Your task to perform on an android device: open chrome privacy settings Image 0: 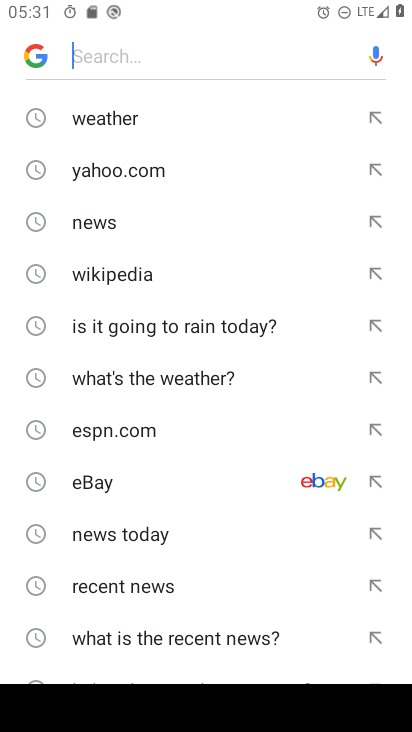
Step 0: press home button
Your task to perform on an android device: open chrome privacy settings Image 1: 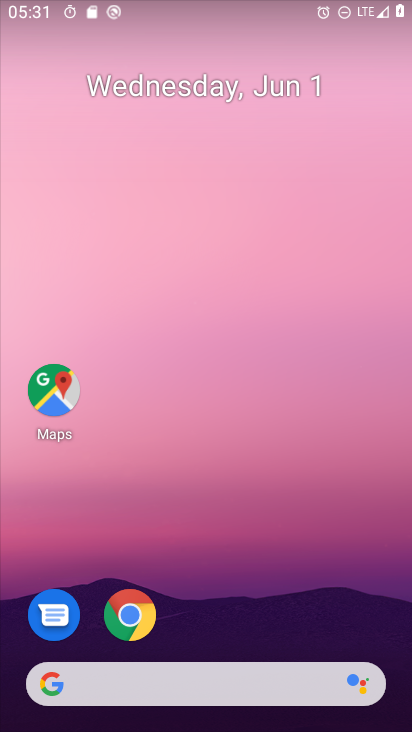
Step 1: drag from (192, 679) to (306, 26)
Your task to perform on an android device: open chrome privacy settings Image 2: 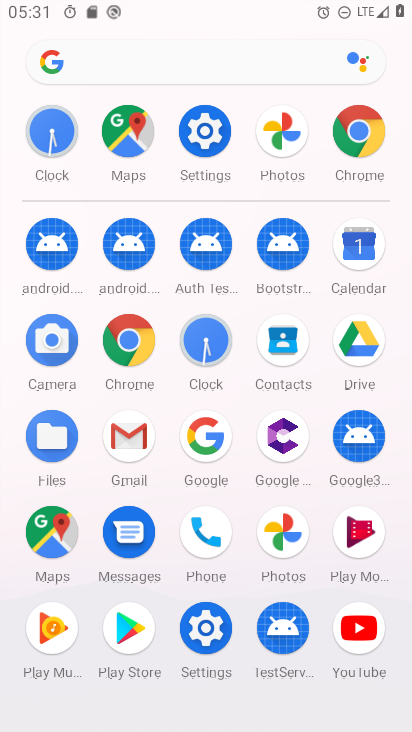
Step 2: click (218, 134)
Your task to perform on an android device: open chrome privacy settings Image 3: 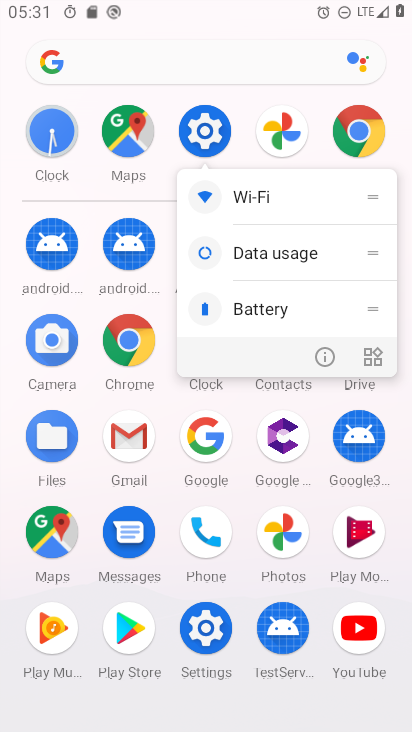
Step 3: click (218, 133)
Your task to perform on an android device: open chrome privacy settings Image 4: 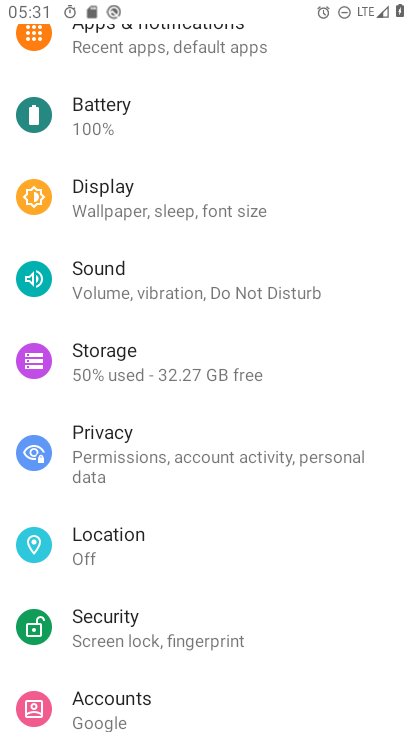
Step 4: drag from (192, 189) to (170, 465)
Your task to perform on an android device: open chrome privacy settings Image 5: 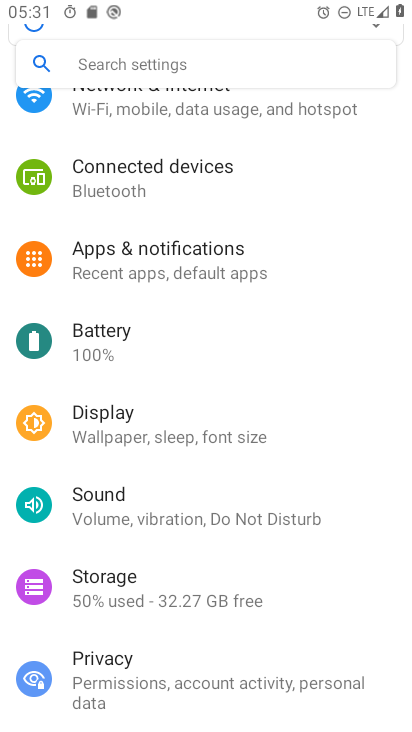
Step 5: click (121, 669)
Your task to perform on an android device: open chrome privacy settings Image 6: 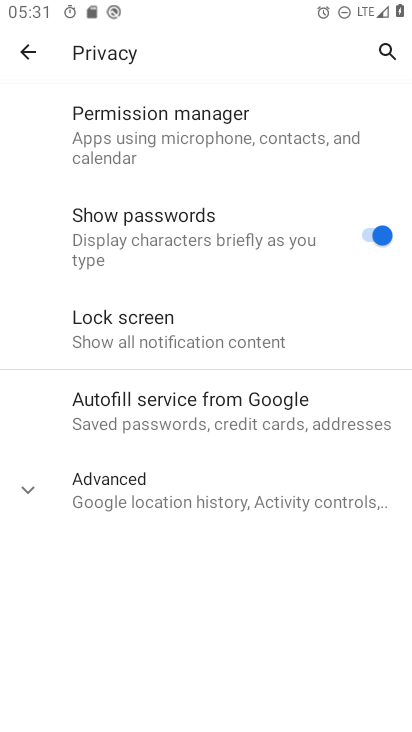
Step 6: press home button
Your task to perform on an android device: open chrome privacy settings Image 7: 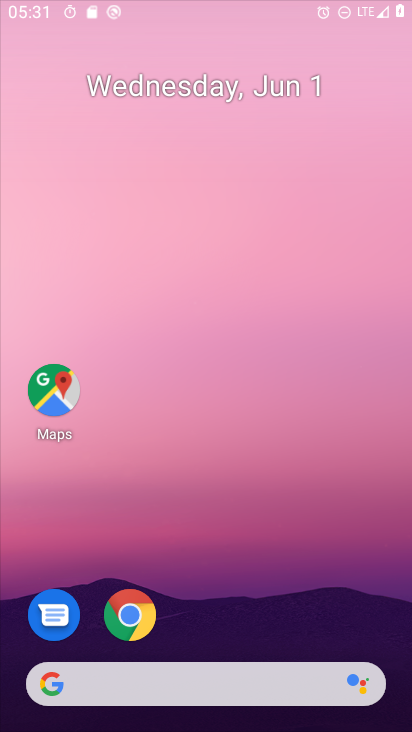
Step 7: drag from (165, 678) to (194, 43)
Your task to perform on an android device: open chrome privacy settings Image 8: 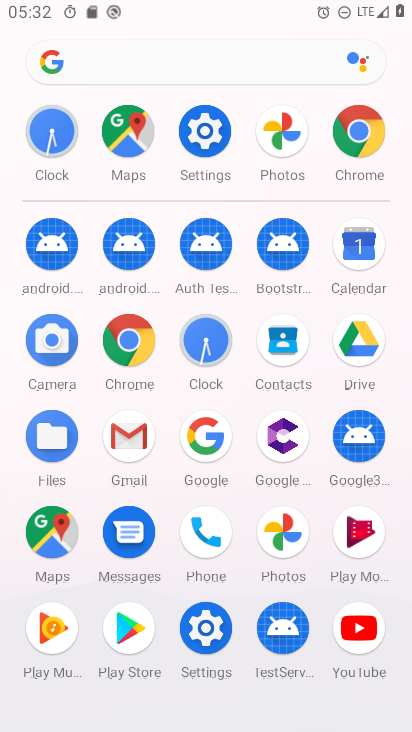
Step 8: click (146, 346)
Your task to perform on an android device: open chrome privacy settings Image 9: 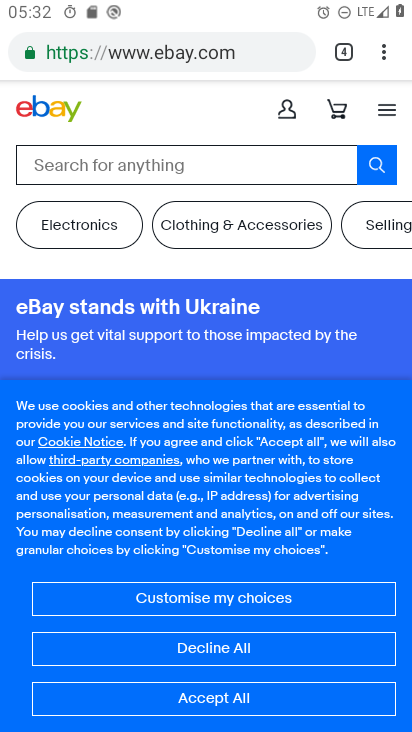
Step 9: drag from (375, 38) to (225, 628)
Your task to perform on an android device: open chrome privacy settings Image 10: 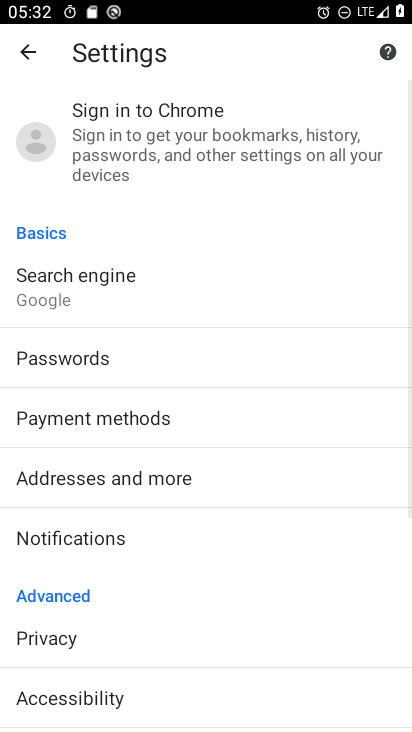
Step 10: click (94, 636)
Your task to perform on an android device: open chrome privacy settings Image 11: 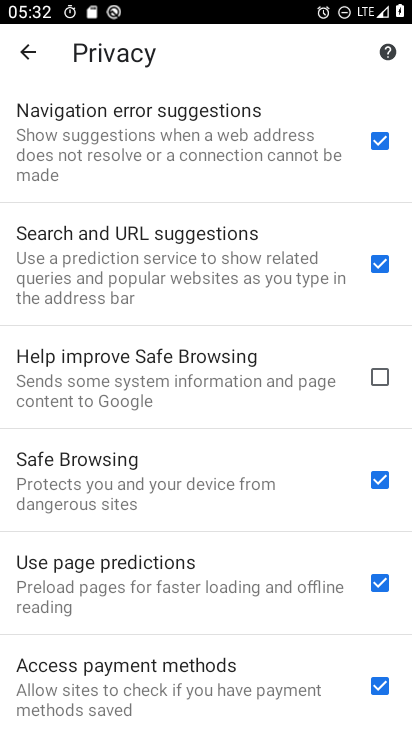
Step 11: task complete